Your task to perform on an android device: turn off priority inbox in the gmail app Image 0: 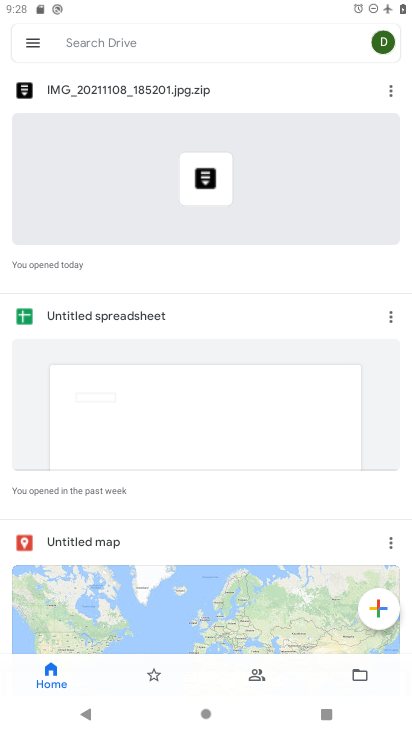
Step 0: press home button
Your task to perform on an android device: turn off priority inbox in the gmail app Image 1: 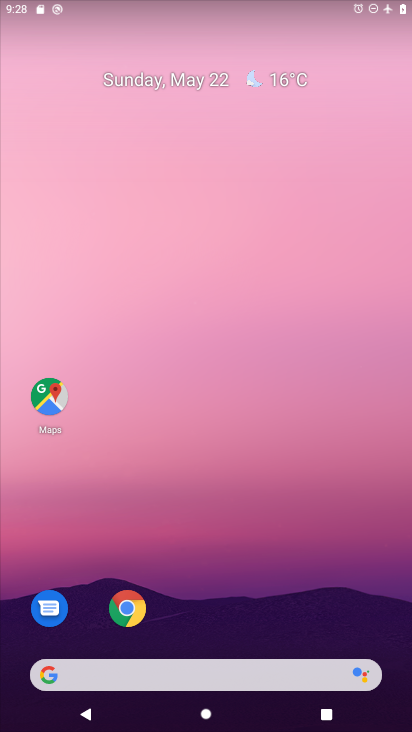
Step 1: drag from (228, 729) to (239, 214)
Your task to perform on an android device: turn off priority inbox in the gmail app Image 2: 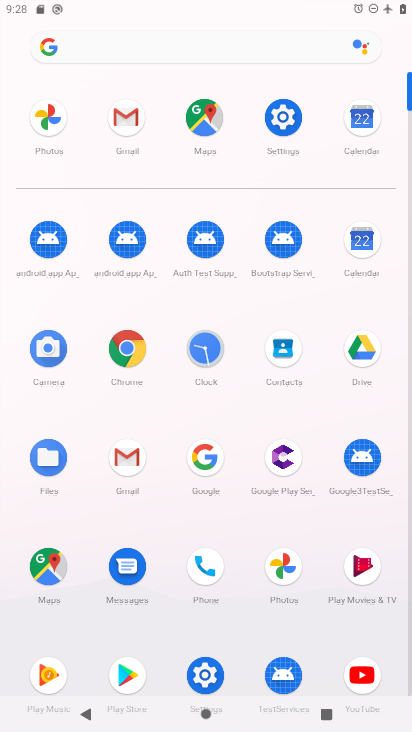
Step 2: click (279, 113)
Your task to perform on an android device: turn off priority inbox in the gmail app Image 3: 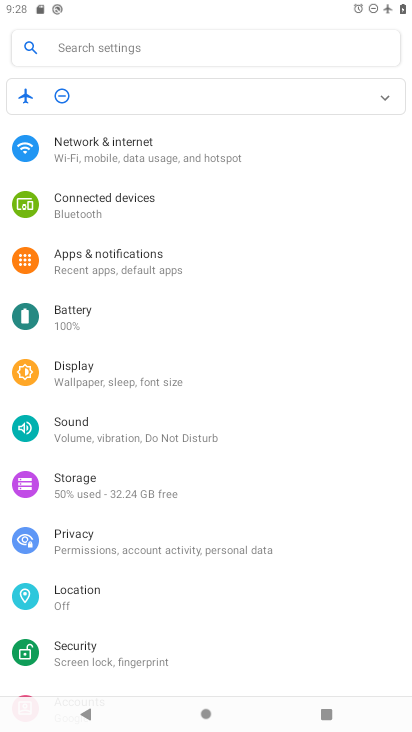
Step 3: press home button
Your task to perform on an android device: turn off priority inbox in the gmail app Image 4: 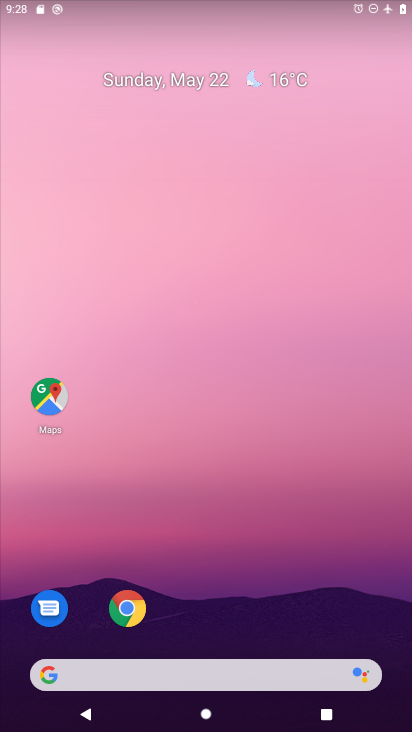
Step 4: drag from (234, 721) to (233, 203)
Your task to perform on an android device: turn off priority inbox in the gmail app Image 5: 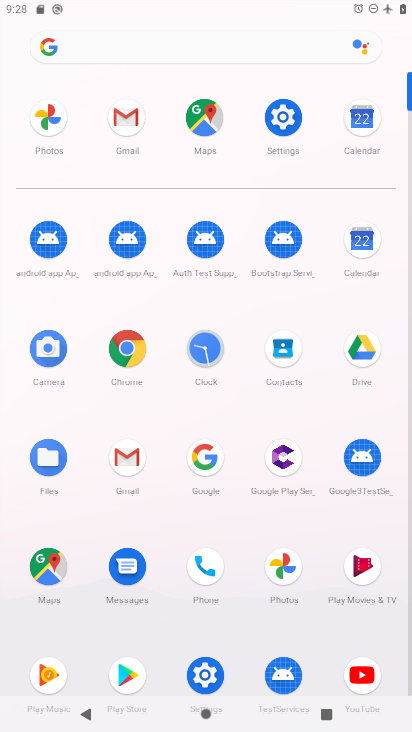
Step 5: click (127, 454)
Your task to perform on an android device: turn off priority inbox in the gmail app Image 6: 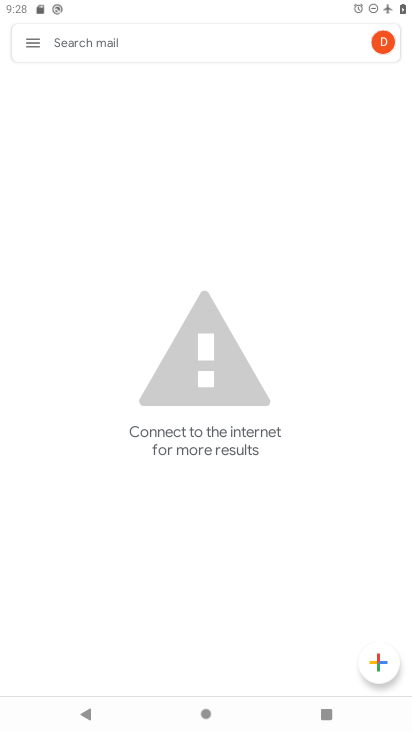
Step 6: click (34, 44)
Your task to perform on an android device: turn off priority inbox in the gmail app Image 7: 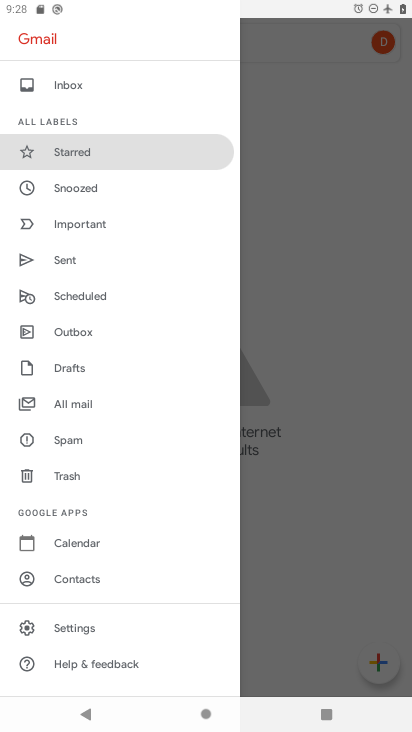
Step 7: click (76, 624)
Your task to perform on an android device: turn off priority inbox in the gmail app Image 8: 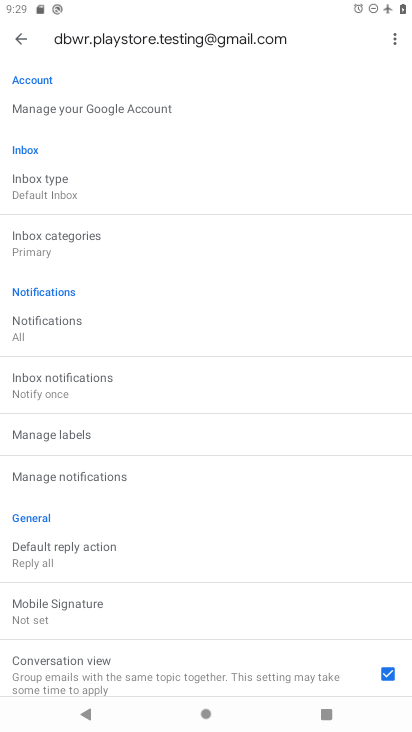
Step 8: task complete